Your task to perform on an android device: Open maps Image 0: 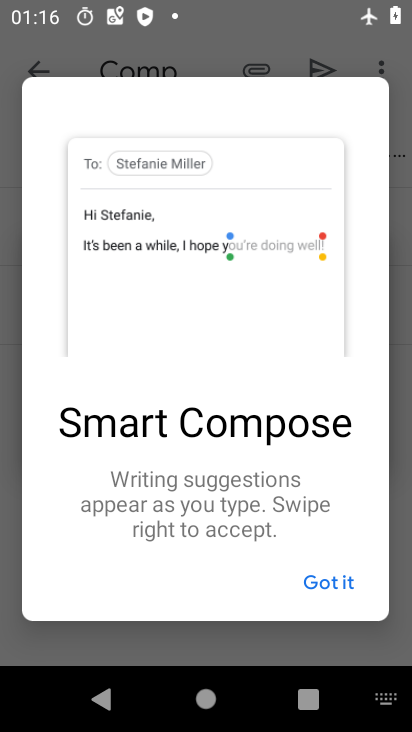
Step 0: press home button
Your task to perform on an android device: Open maps Image 1: 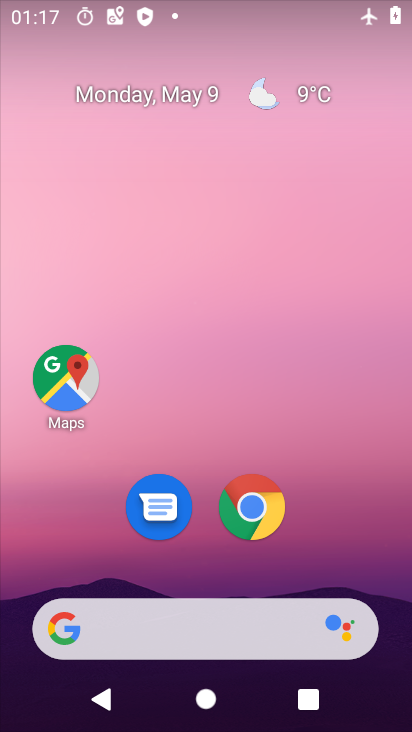
Step 1: drag from (233, 728) to (228, 289)
Your task to perform on an android device: Open maps Image 2: 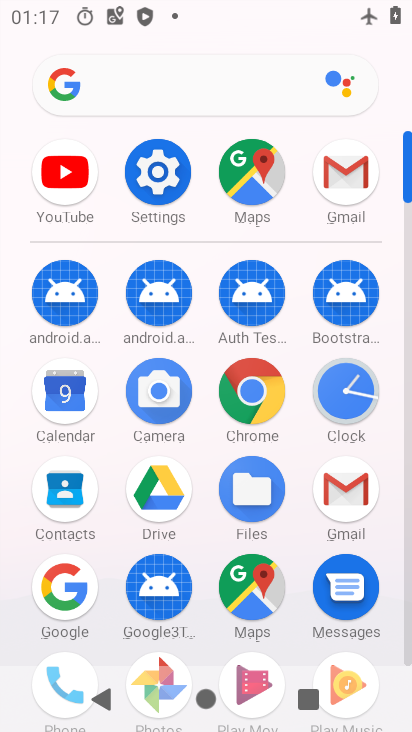
Step 2: click (262, 591)
Your task to perform on an android device: Open maps Image 3: 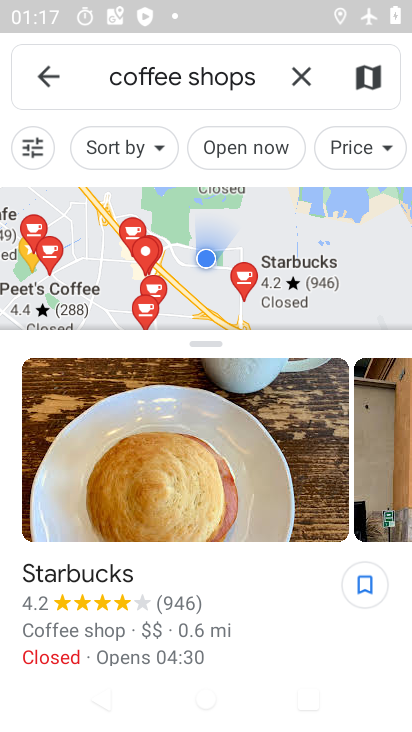
Step 3: task complete